Your task to perform on an android device: change the clock display to digital Image 0: 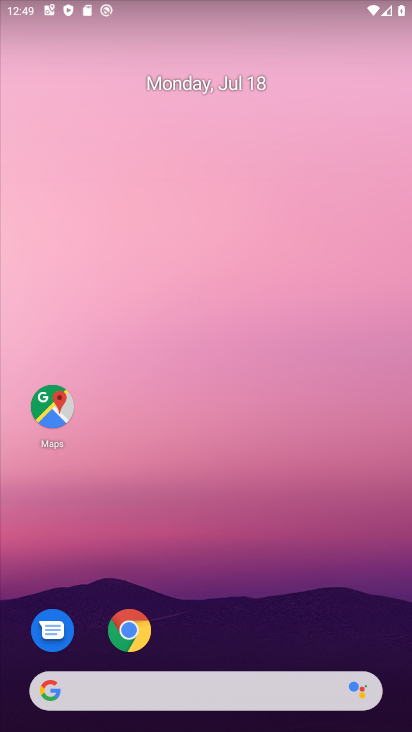
Step 0: drag from (335, 634) to (275, 114)
Your task to perform on an android device: change the clock display to digital Image 1: 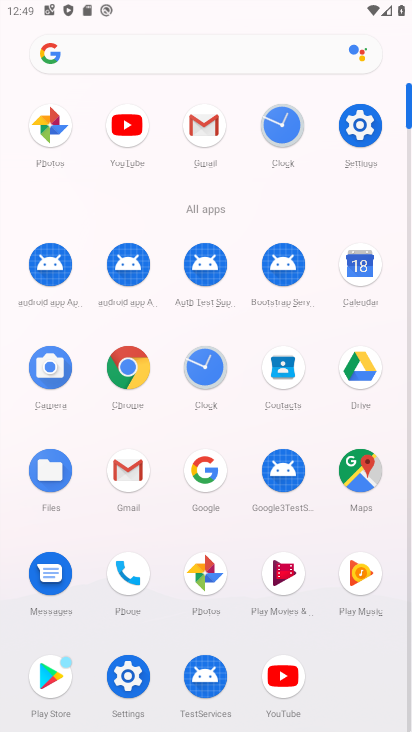
Step 1: click (296, 128)
Your task to perform on an android device: change the clock display to digital Image 2: 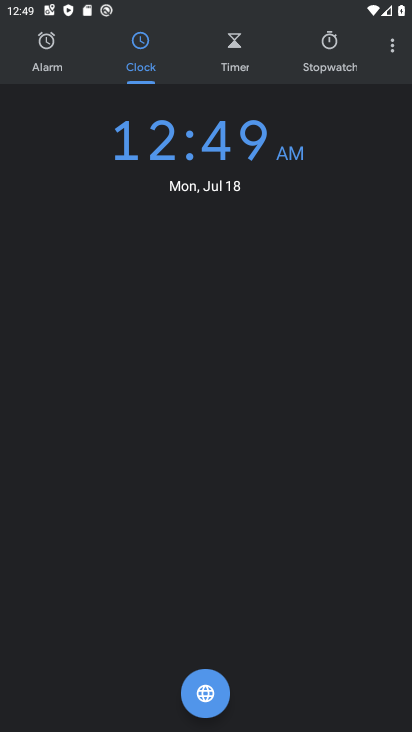
Step 2: click (393, 60)
Your task to perform on an android device: change the clock display to digital Image 3: 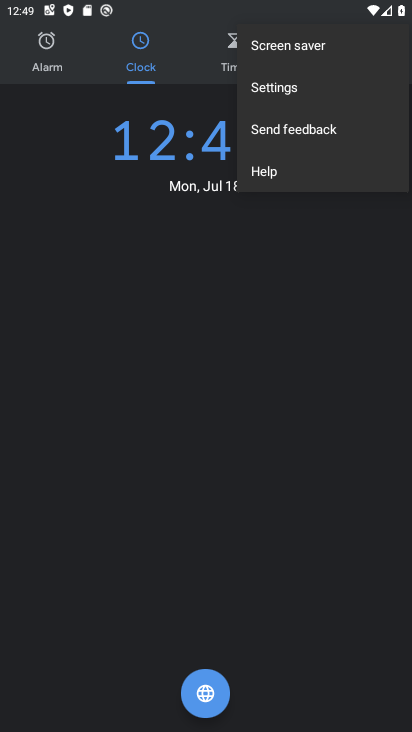
Step 3: click (302, 96)
Your task to perform on an android device: change the clock display to digital Image 4: 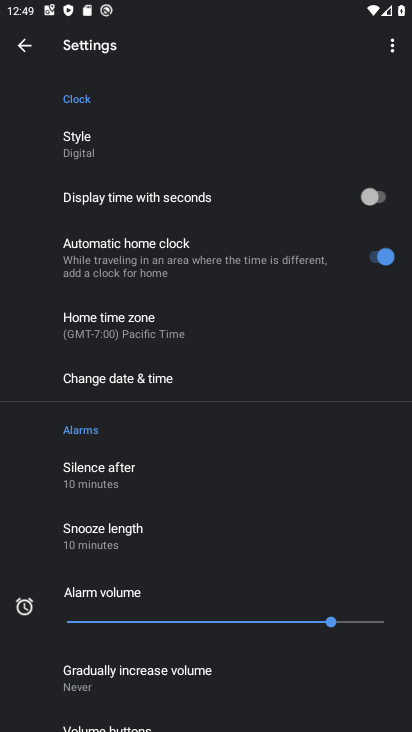
Step 4: click (227, 157)
Your task to perform on an android device: change the clock display to digital Image 5: 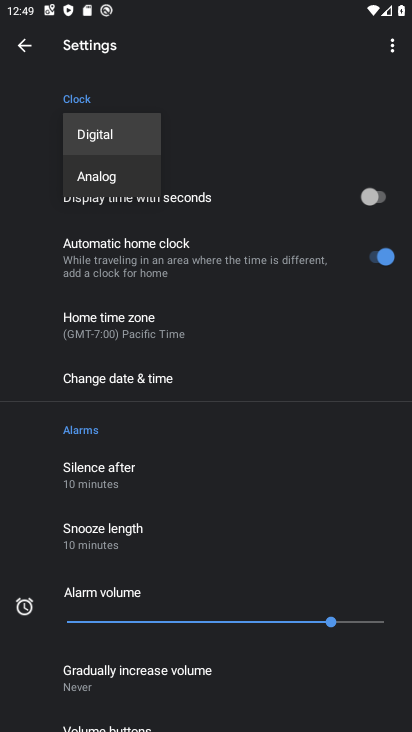
Step 5: click (143, 139)
Your task to perform on an android device: change the clock display to digital Image 6: 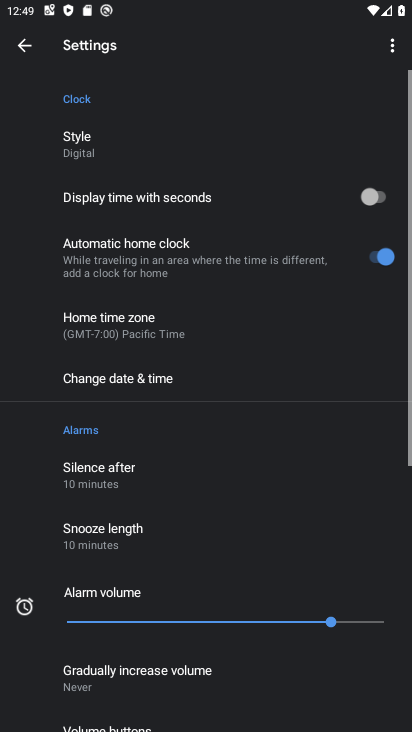
Step 6: task complete